Your task to perform on an android device: turn pop-ups off in chrome Image 0: 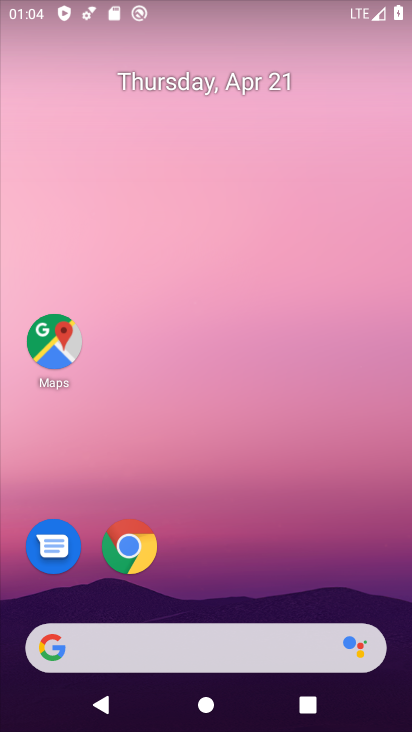
Step 0: click (112, 568)
Your task to perform on an android device: turn pop-ups off in chrome Image 1: 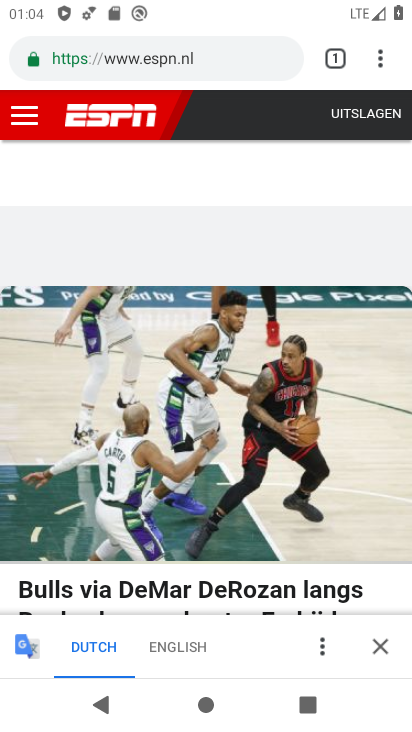
Step 1: drag from (367, 57) to (222, 581)
Your task to perform on an android device: turn pop-ups off in chrome Image 2: 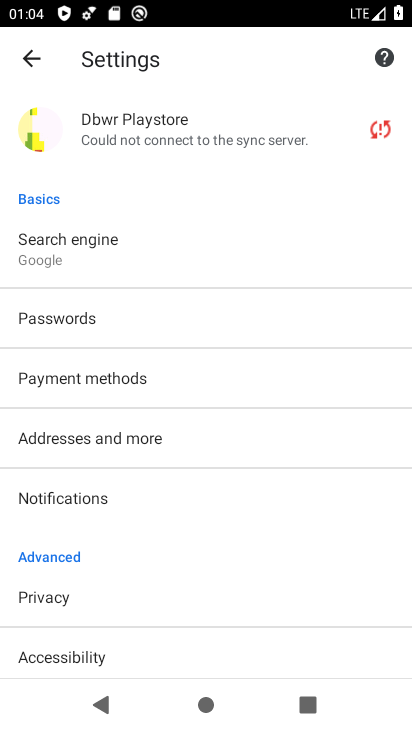
Step 2: drag from (158, 533) to (191, 349)
Your task to perform on an android device: turn pop-ups off in chrome Image 3: 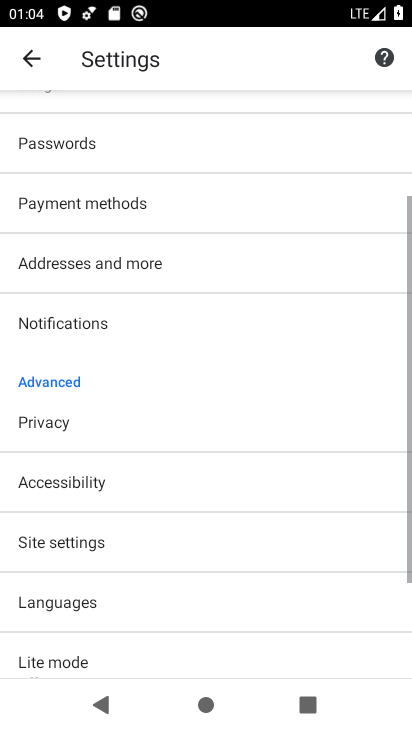
Step 3: drag from (189, 388) to (208, 459)
Your task to perform on an android device: turn pop-ups off in chrome Image 4: 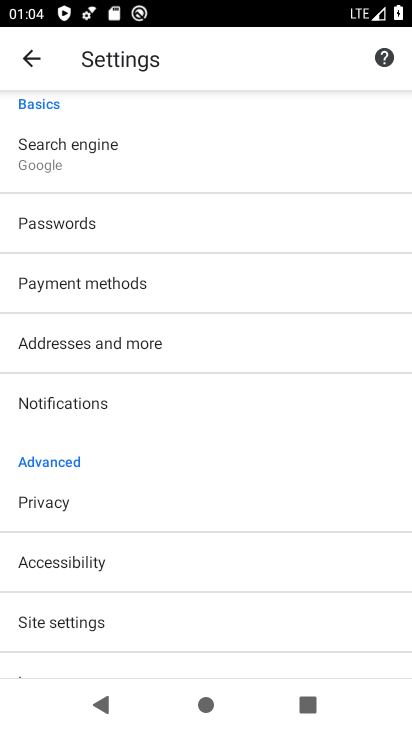
Step 4: drag from (206, 334) to (217, 228)
Your task to perform on an android device: turn pop-ups off in chrome Image 5: 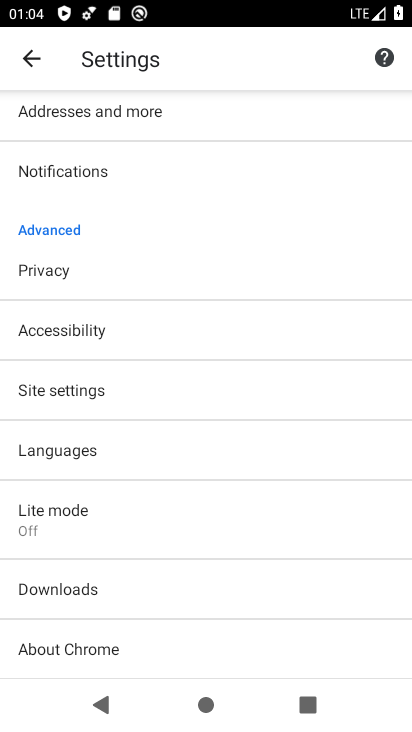
Step 5: click (57, 389)
Your task to perform on an android device: turn pop-ups off in chrome Image 6: 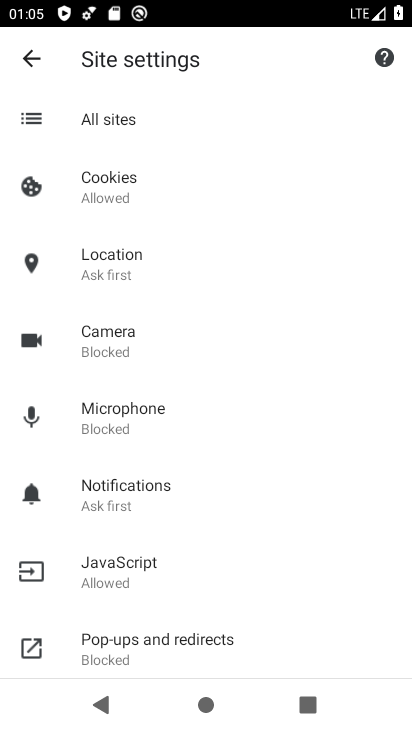
Step 6: click (196, 648)
Your task to perform on an android device: turn pop-ups off in chrome Image 7: 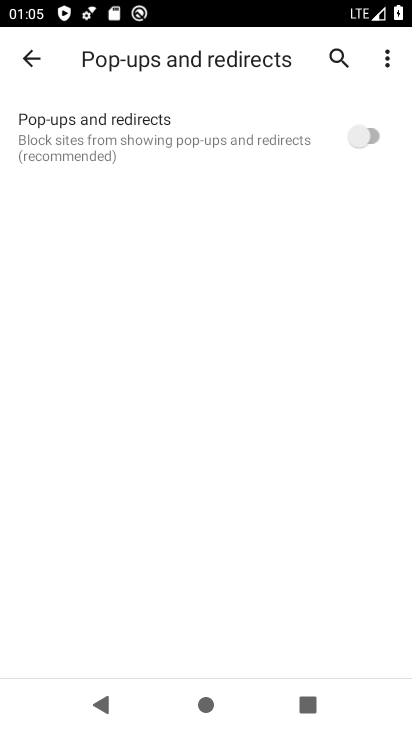
Step 7: click (329, 188)
Your task to perform on an android device: turn pop-ups off in chrome Image 8: 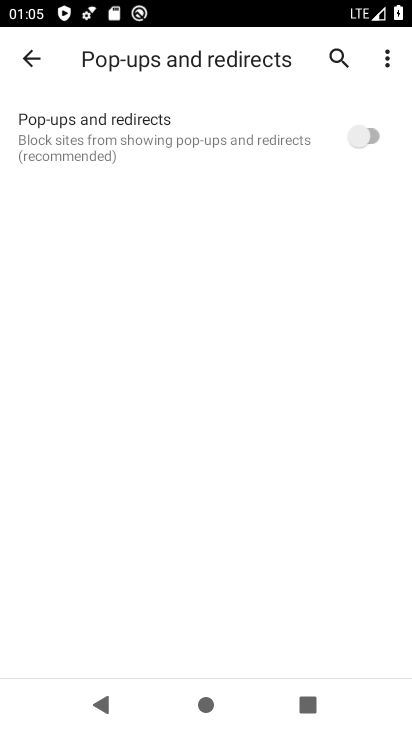
Step 8: click (349, 132)
Your task to perform on an android device: turn pop-ups off in chrome Image 9: 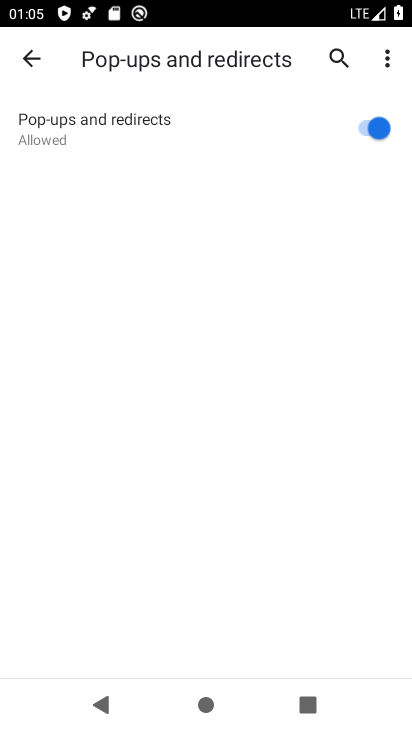
Step 9: task complete